Your task to perform on an android device: open chrome privacy settings Image 0: 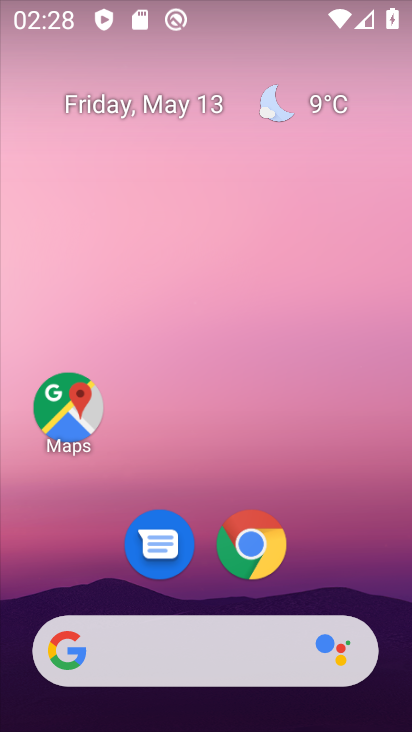
Step 0: drag from (333, 542) to (231, 15)
Your task to perform on an android device: open chrome privacy settings Image 1: 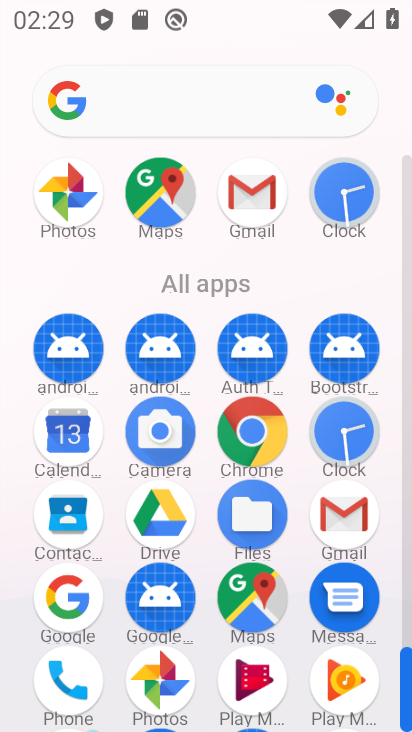
Step 1: click (255, 424)
Your task to perform on an android device: open chrome privacy settings Image 2: 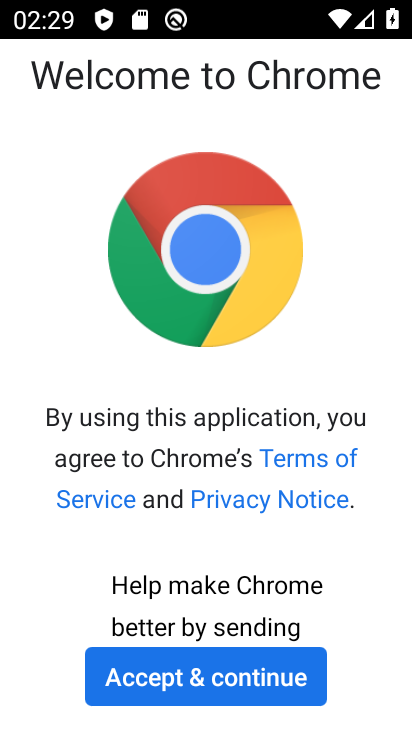
Step 2: click (210, 682)
Your task to perform on an android device: open chrome privacy settings Image 3: 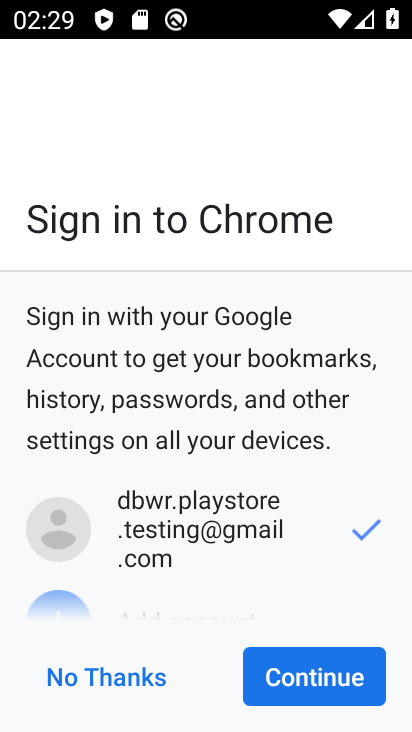
Step 3: click (313, 662)
Your task to perform on an android device: open chrome privacy settings Image 4: 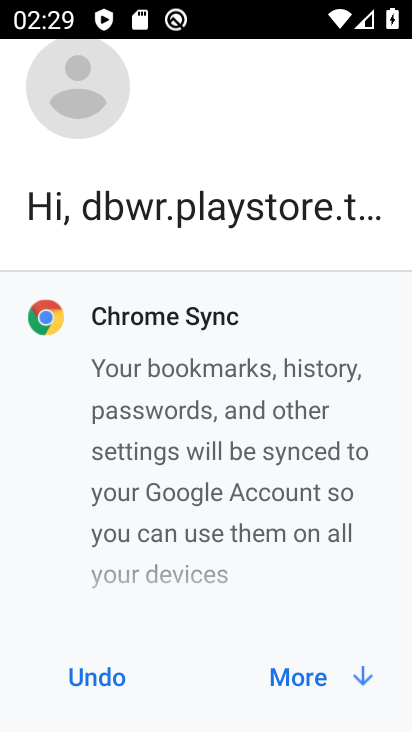
Step 4: click (292, 679)
Your task to perform on an android device: open chrome privacy settings Image 5: 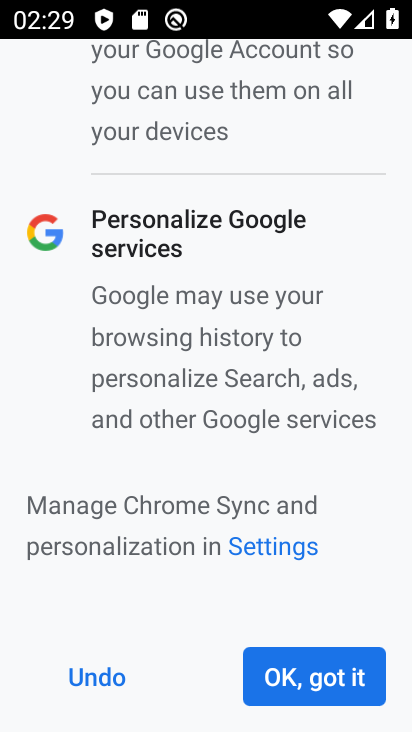
Step 5: click (292, 679)
Your task to perform on an android device: open chrome privacy settings Image 6: 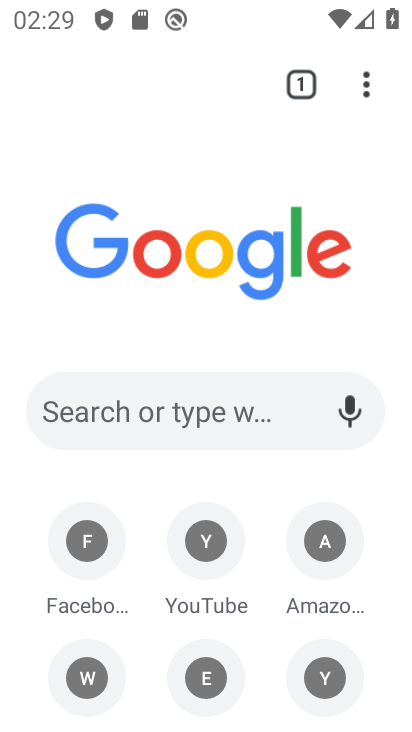
Step 6: drag from (368, 75) to (183, 584)
Your task to perform on an android device: open chrome privacy settings Image 7: 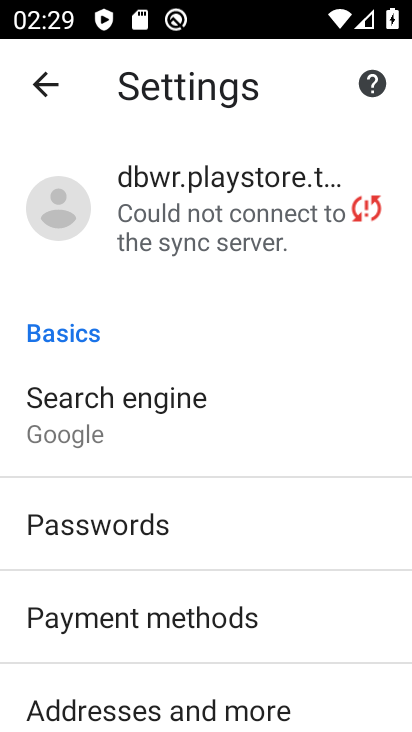
Step 7: drag from (262, 580) to (270, 234)
Your task to perform on an android device: open chrome privacy settings Image 8: 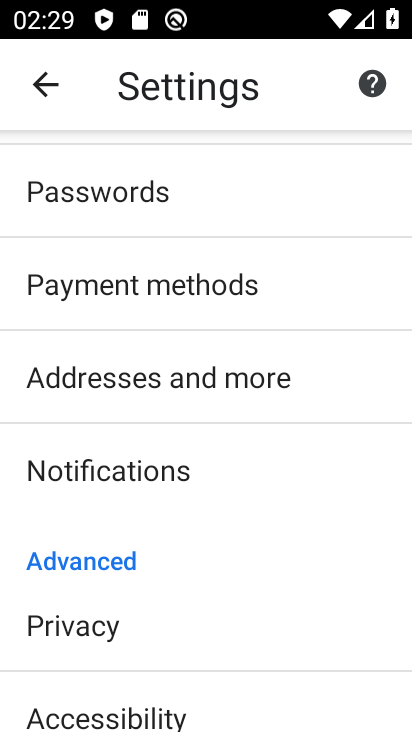
Step 8: click (119, 605)
Your task to perform on an android device: open chrome privacy settings Image 9: 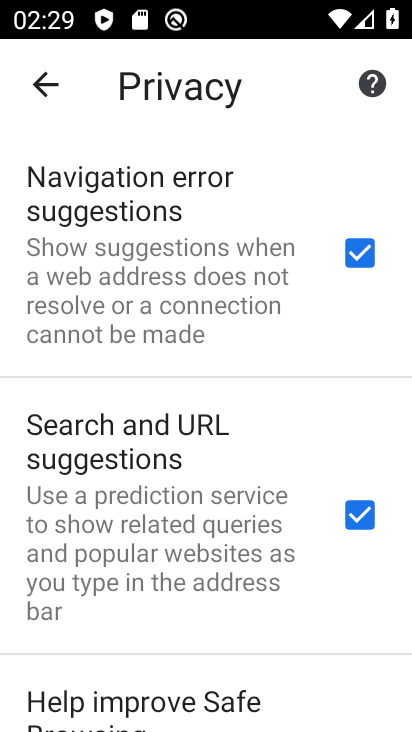
Step 9: task complete